Your task to perform on an android device: turn off javascript in the chrome app Image 0: 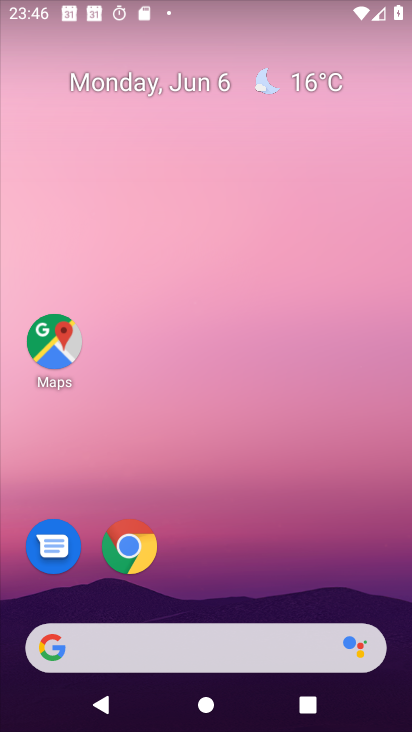
Step 0: click (141, 550)
Your task to perform on an android device: turn off javascript in the chrome app Image 1: 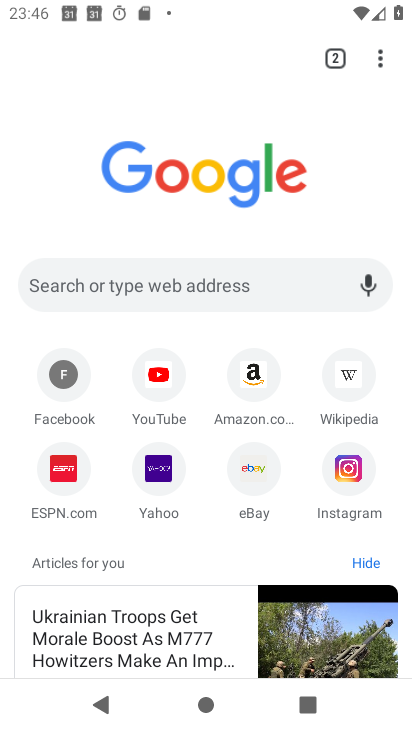
Step 1: click (382, 60)
Your task to perform on an android device: turn off javascript in the chrome app Image 2: 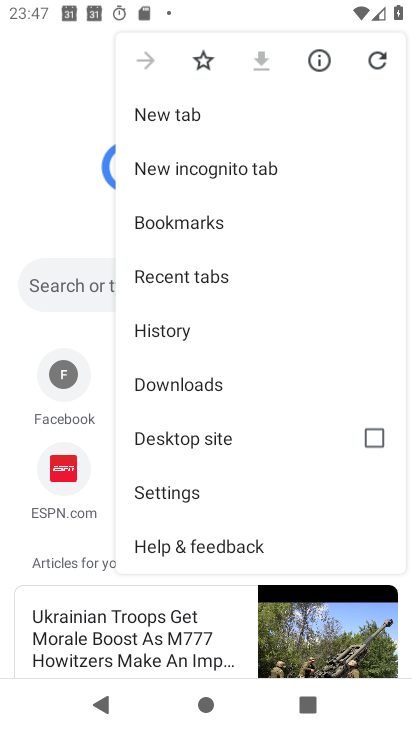
Step 2: click (173, 490)
Your task to perform on an android device: turn off javascript in the chrome app Image 3: 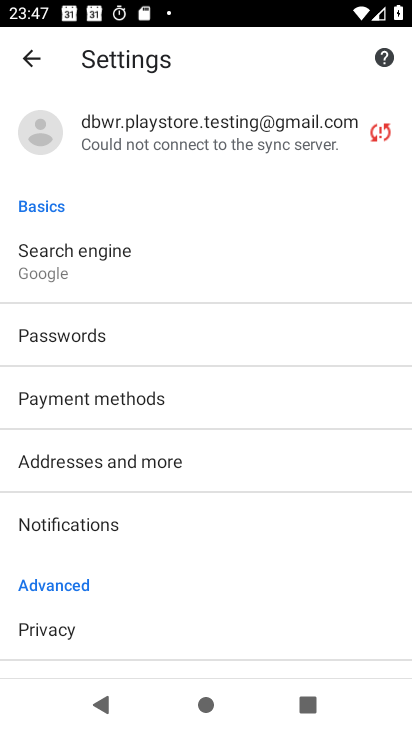
Step 3: drag from (82, 569) to (119, 361)
Your task to perform on an android device: turn off javascript in the chrome app Image 4: 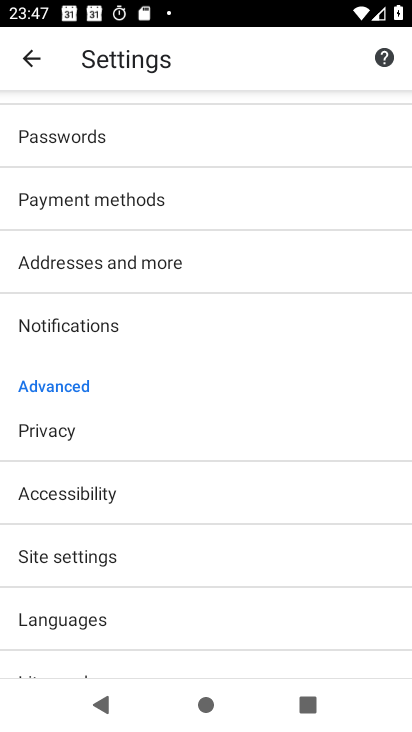
Step 4: click (87, 563)
Your task to perform on an android device: turn off javascript in the chrome app Image 5: 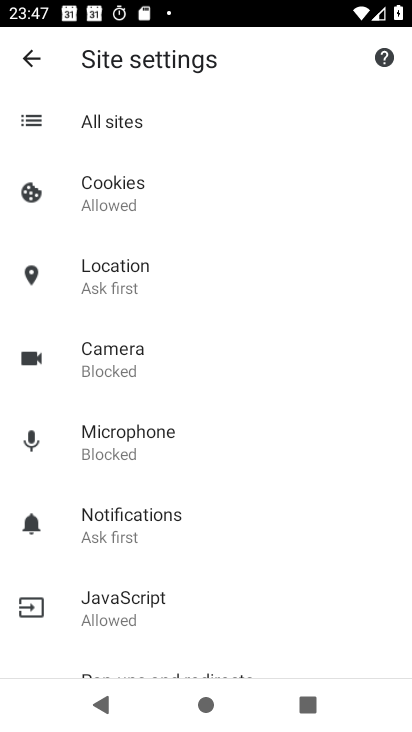
Step 5: click (133, 620)
Your task to perform on an android device: turn off javascript in the chrome app Image 6: 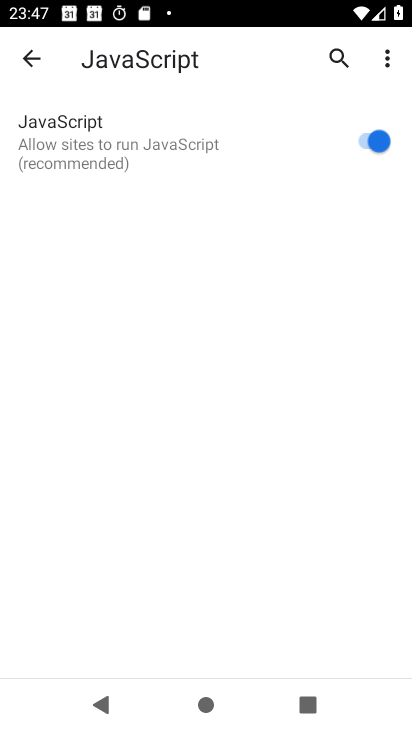
Step 6: click (348, 139)
Your task to perform on an android device: turn off javascript in the chrome app Image 7: 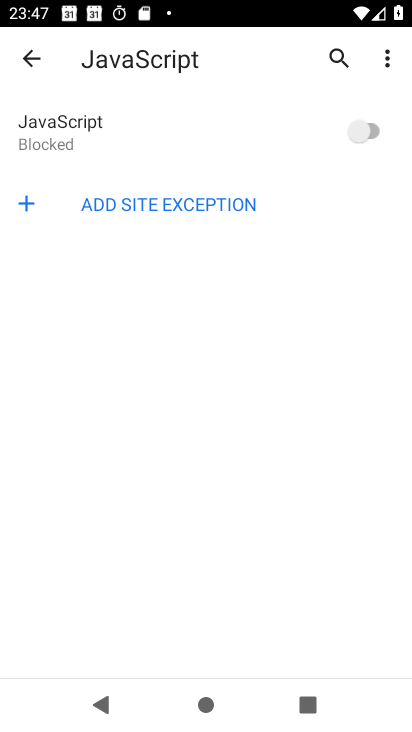
Step 7: task complete